Your task to perform on an android device: turn on airplane mode Image 0: 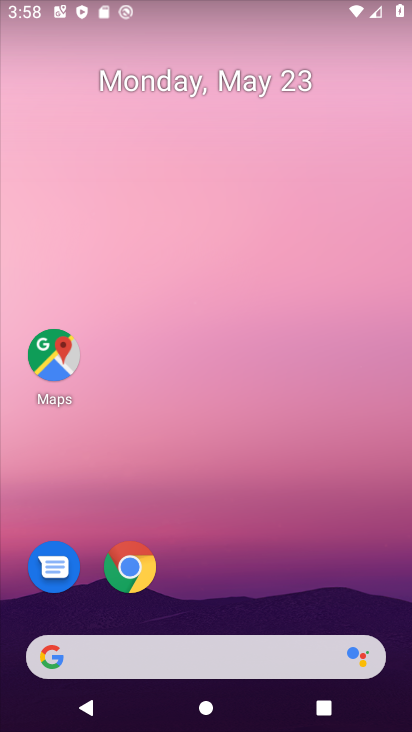
Step 0: drag from (280, 171) to (272, 115)
Your task to perform on an android device: turn on airplane mode Image 1: 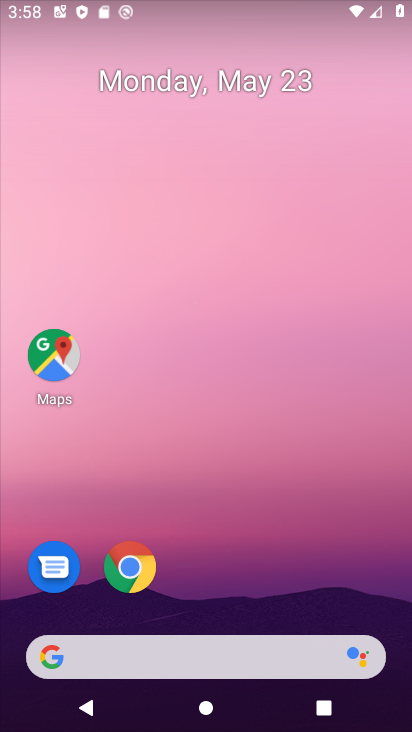
Step 1: drag from (400, 669) to (301, 103)
Your task to perform on an android device: turn on airplane mode Image 2: 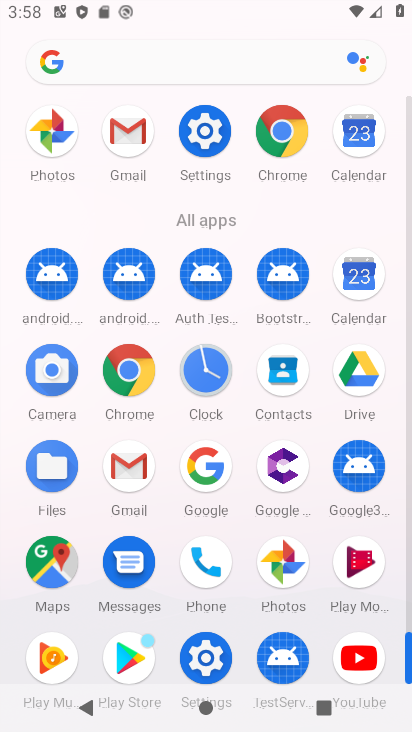
Step 2: click (203, 656)
Your task to perform on an android device: turn on airplane mode Image 3: 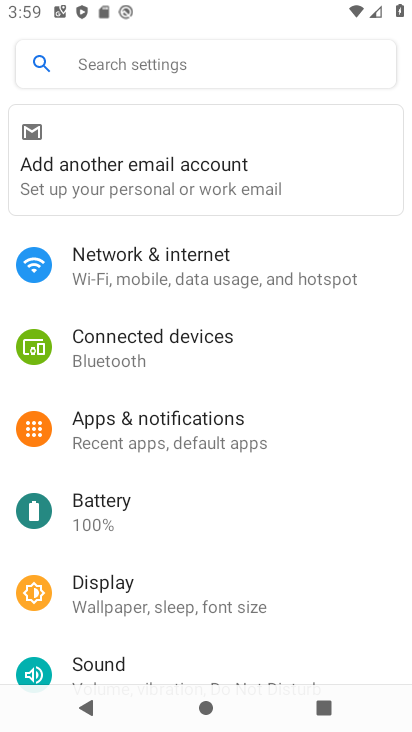
Step 3: click (146, 256)
Your task to perform on an android device: turn on airplane mode Image 4: 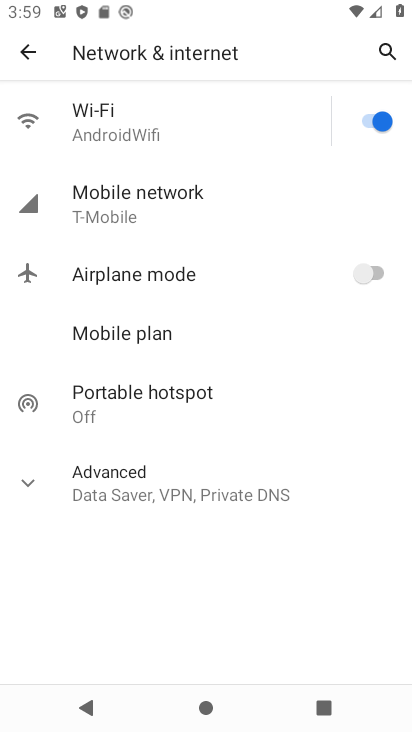
Step 4: click (375, 271)
Your task to perform on an android device: turn on airplane mode Image 5: 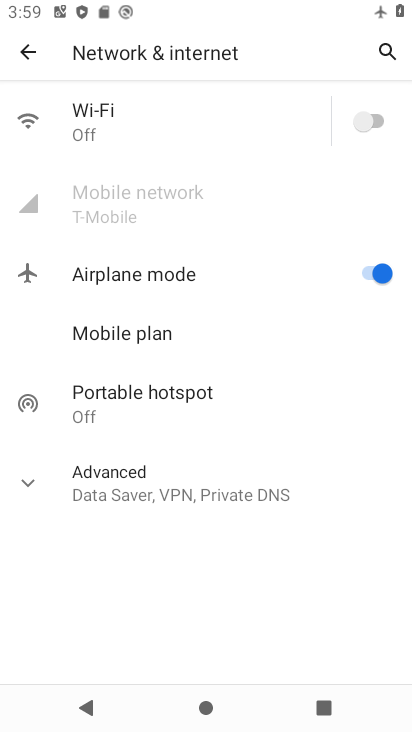
Step 5: task complete